Your task to perform on an android device: turn on priority inbox in the gmail app Image 0: 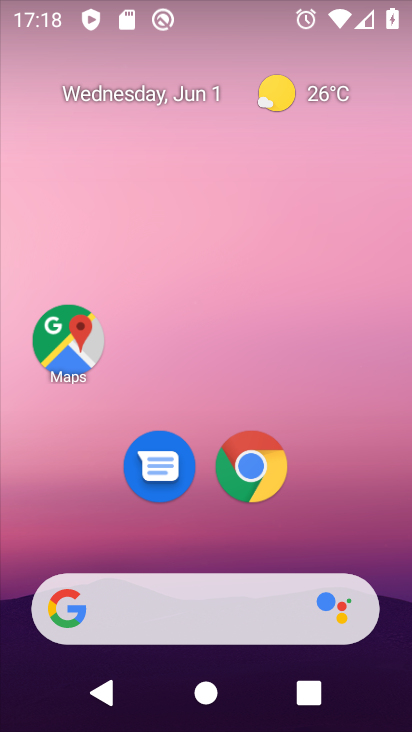
Step 0: drag from (344, 509) to (263, 81)
Your task to perform on an android device: turn on priority inbox in the gmail app Image 1: 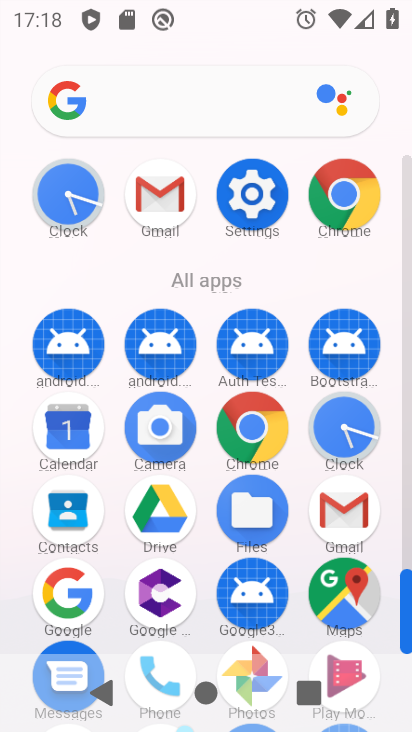
Step 1: click (160, 196)
Your task to perform on an android device: turn on priority inbox in the gmail app Image 2: 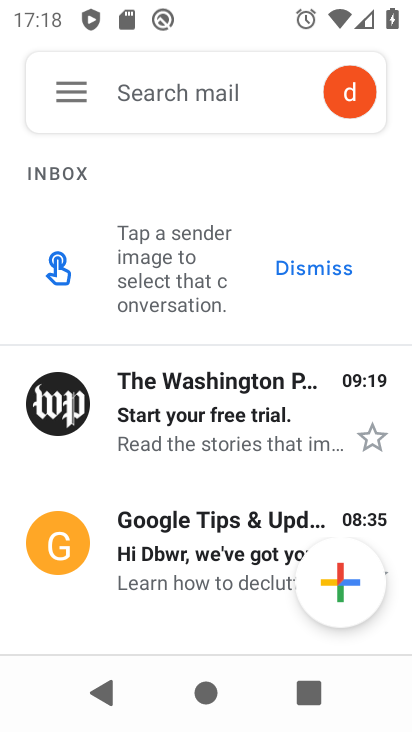
Step 2: click (67, 81)
Your task to perform on an android device: turn on priority inbox in the gmail app Image 3: 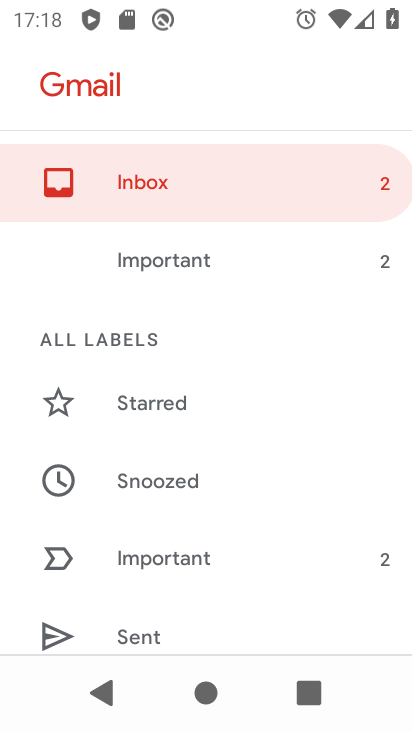
Step 3: drag from (241, 547) to (240, 164)
Your task to perform on an android device: turn on priority inbox in the gmail app Image 4: 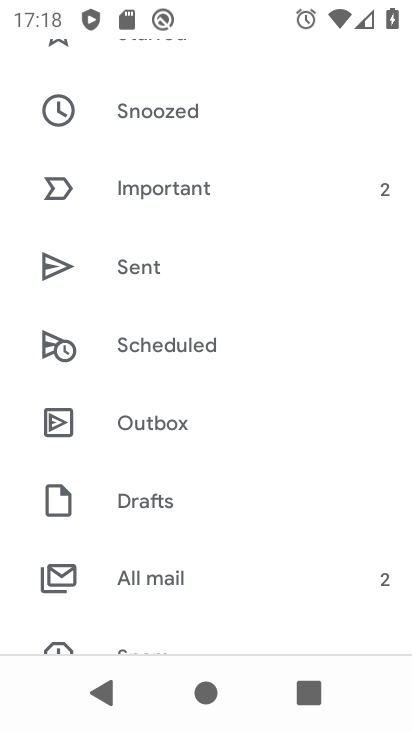
Step 4: drag from (233, 505) to (198, 9)
Your task to perform on an android device: turn on priority inbox in the gmail app Image 5: 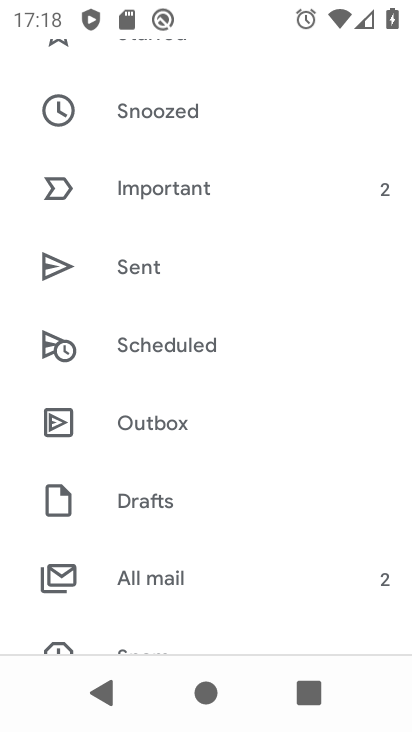
Step 5: drag from (254, 548) to (268, 143)
Your task to perform on an android device: turn on priority inbox in the gmail app Image 6: 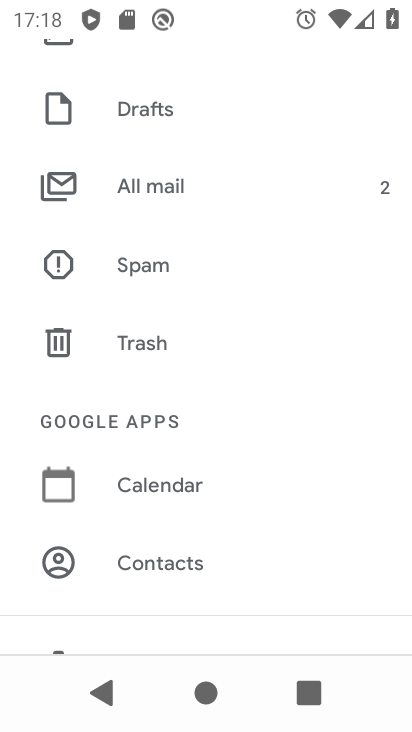
Step 6: drag from (249, 519) to (239, 140)
Your task to perform on an android device: turn on priority inbox in the gmail app Image 7: 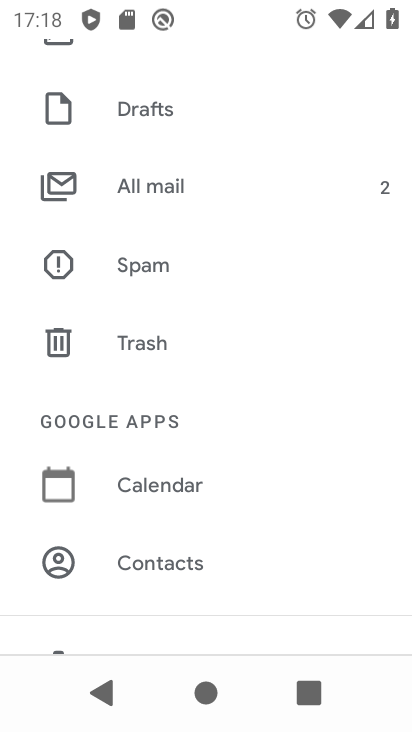
Step 7: drag from (232, 482) to (188, 35)
Your task to perform on an android device: turn on priority inbox in the gmail app Image 8: 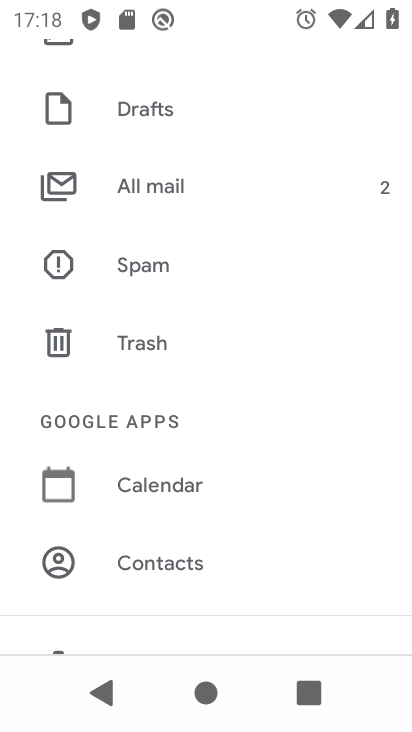
Step 8: drag from (243, 412) to (243, 144)
Your task to perform on an android device: turn on priority inbox in the gmail app Image 9: 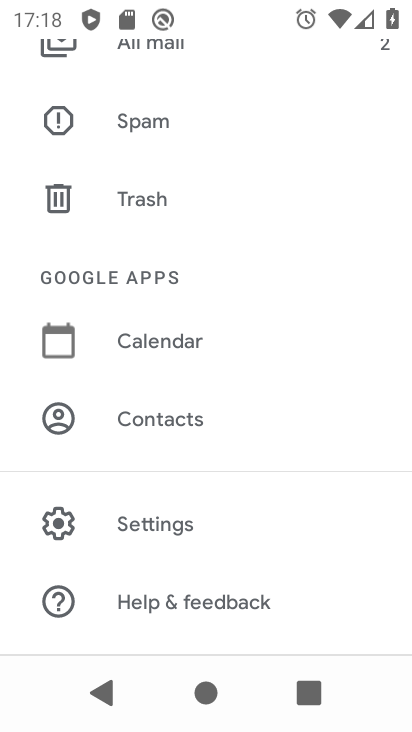
Step 9: click (133, 531)
Your task to perform on an android device: turn on priority inbox in the gmail app Image 10: 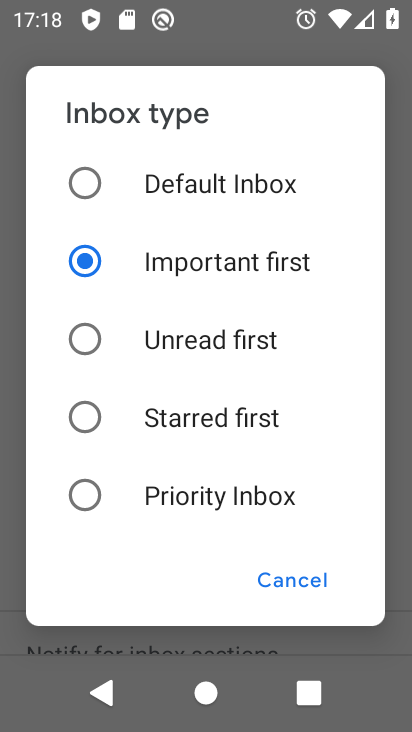
Step 10: click (81, 500)
Your task to perform on an android device: turn on priority inbox in the gmail app Image 11: 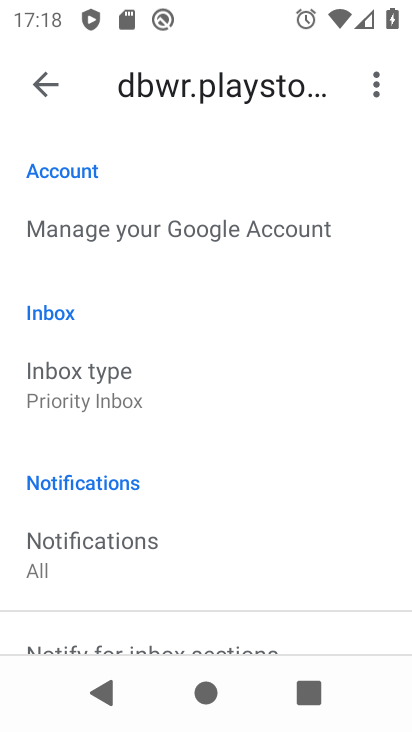
Step 11: task complete